Your task to perform on an android device: Go to privacy settings Image 0: 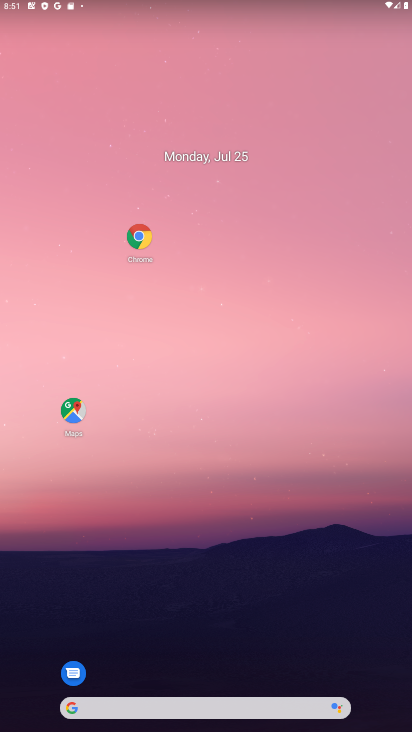
Step 0: task impossible